Your task to perform on an android device: Open ESPN.com Image 0: 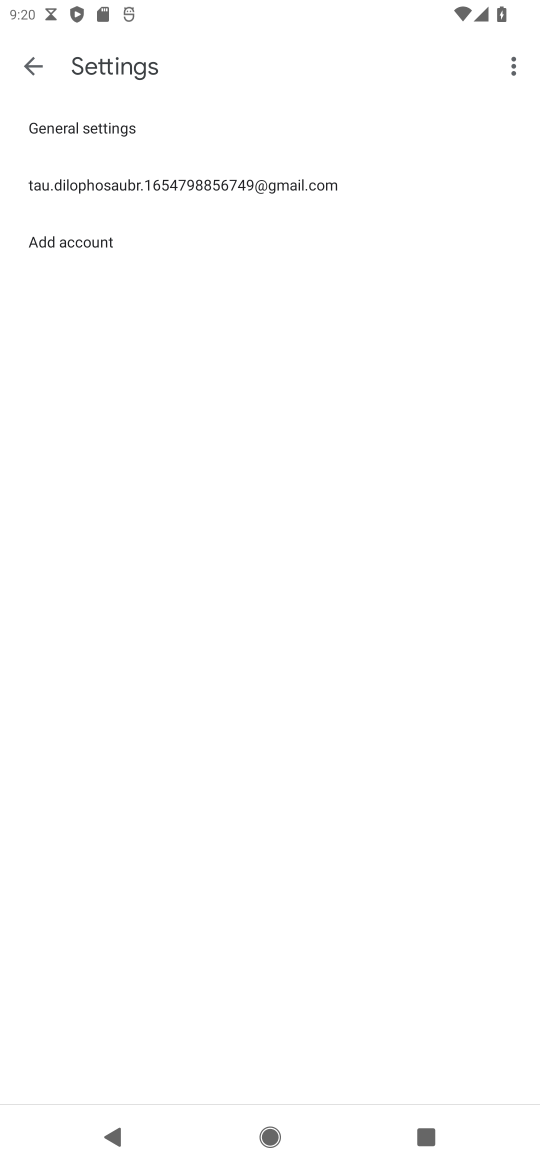
Step 0: press home button
Your task to perform on an android device: Open ESPN.com Image 1: 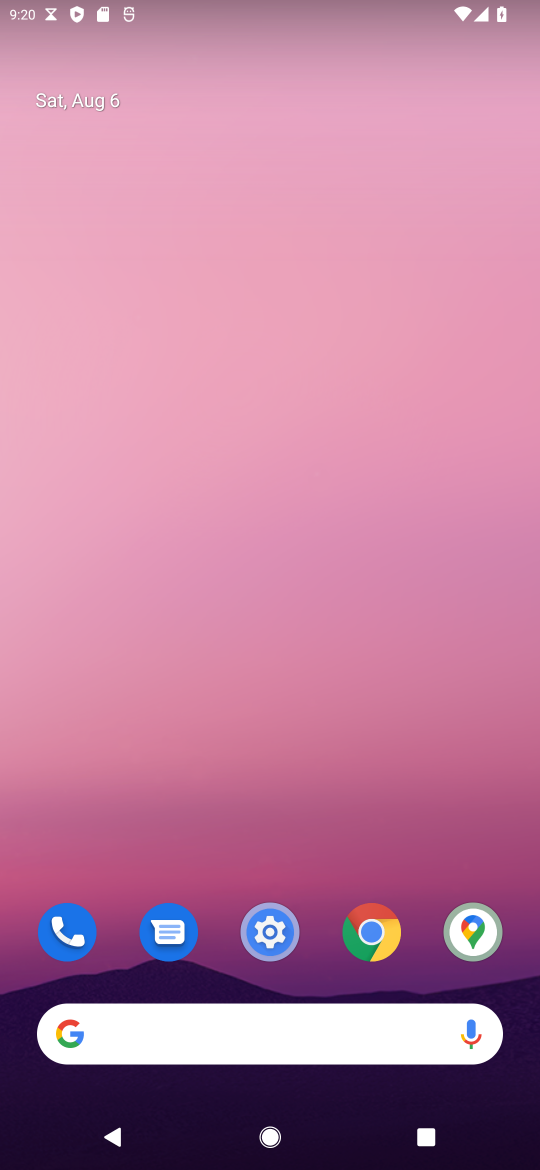
Step 1: click (370, 937)
Your task to perform on an android device: Open ESPN.com Image 2: 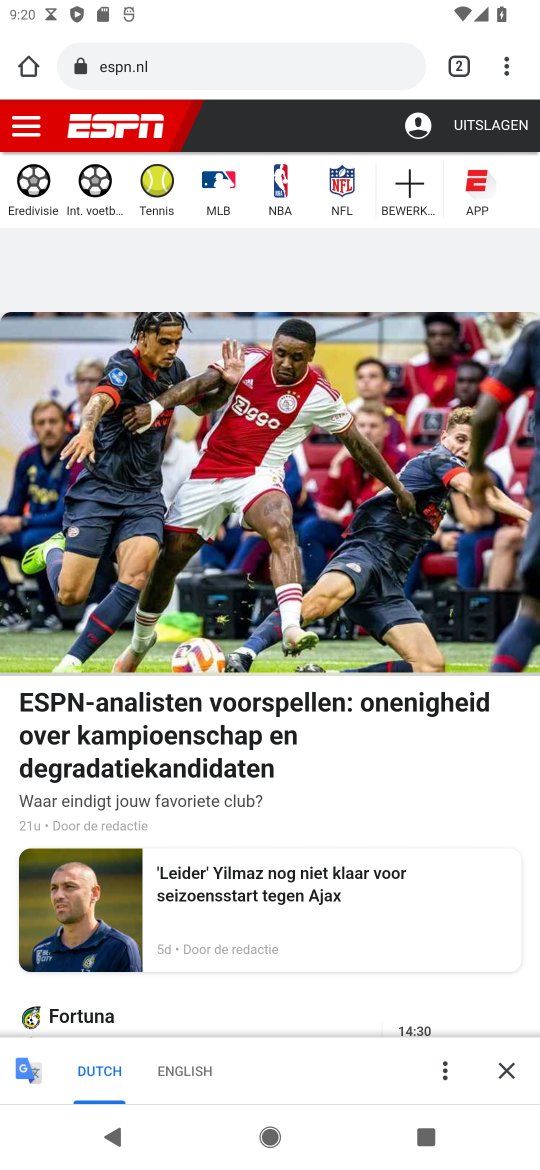
Step 2: task complete